Your task to perform on an android device: Open settings on Google Maps Image 0: 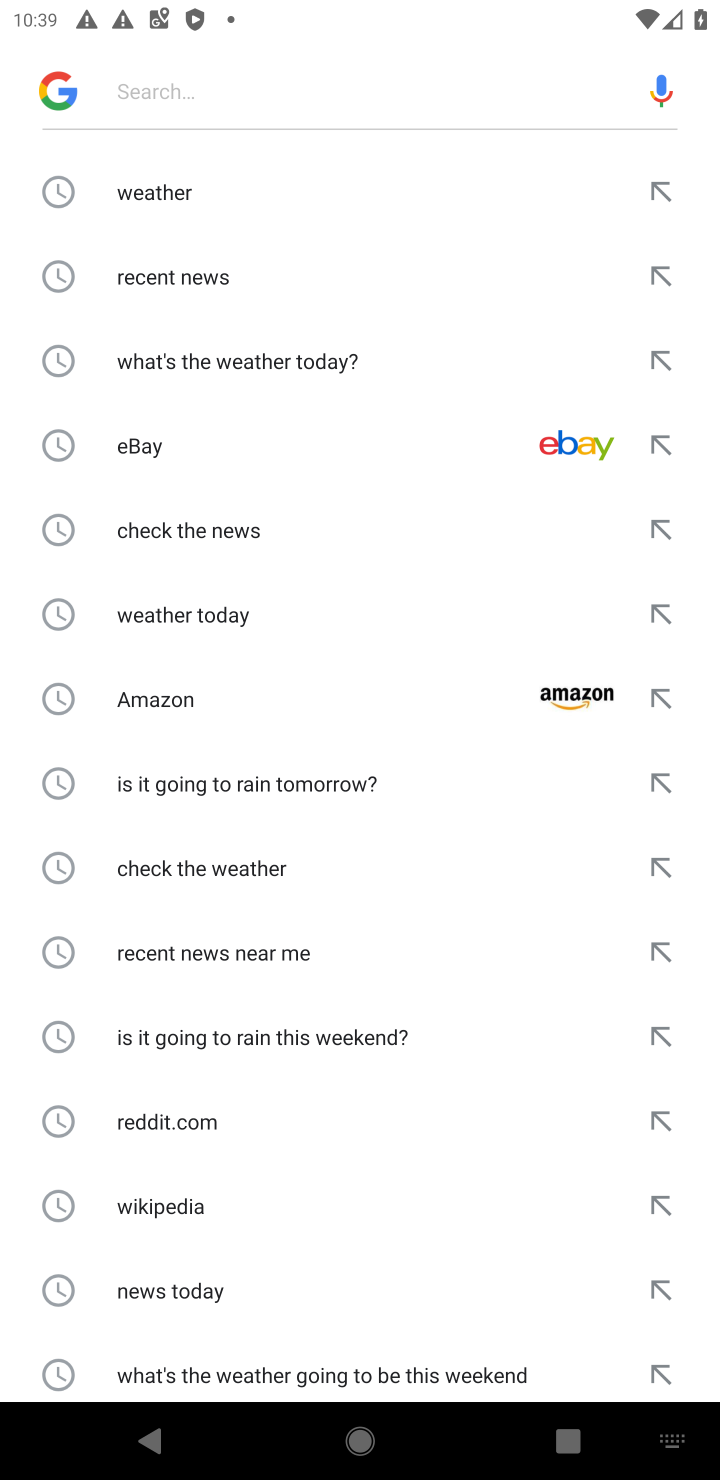
Step 0: press home button
Your task to perform on an android device: Open settings on Google Maps Image 1: 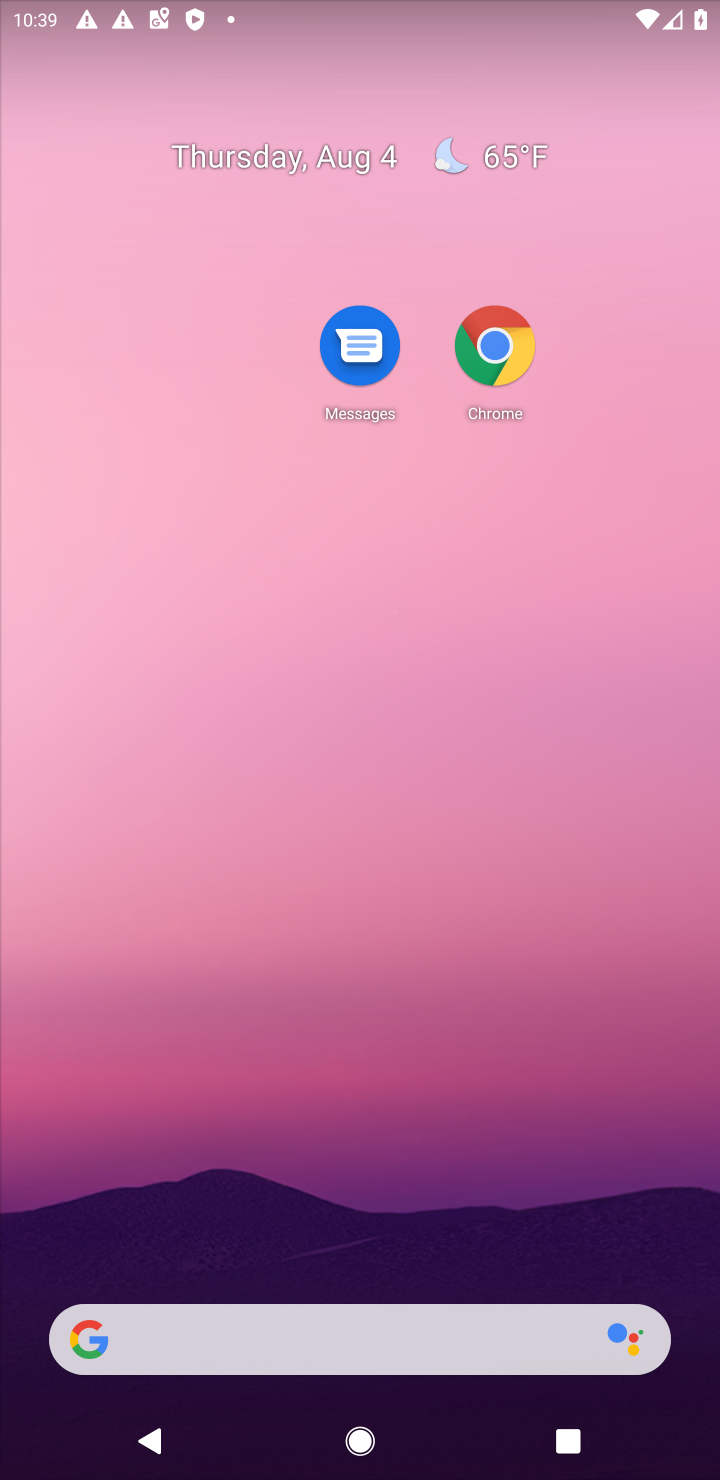
Step 1: drag from (396, 1027) to (457, 48)
Your task to perform on an android device: Open settings on Google Maps Image 2: 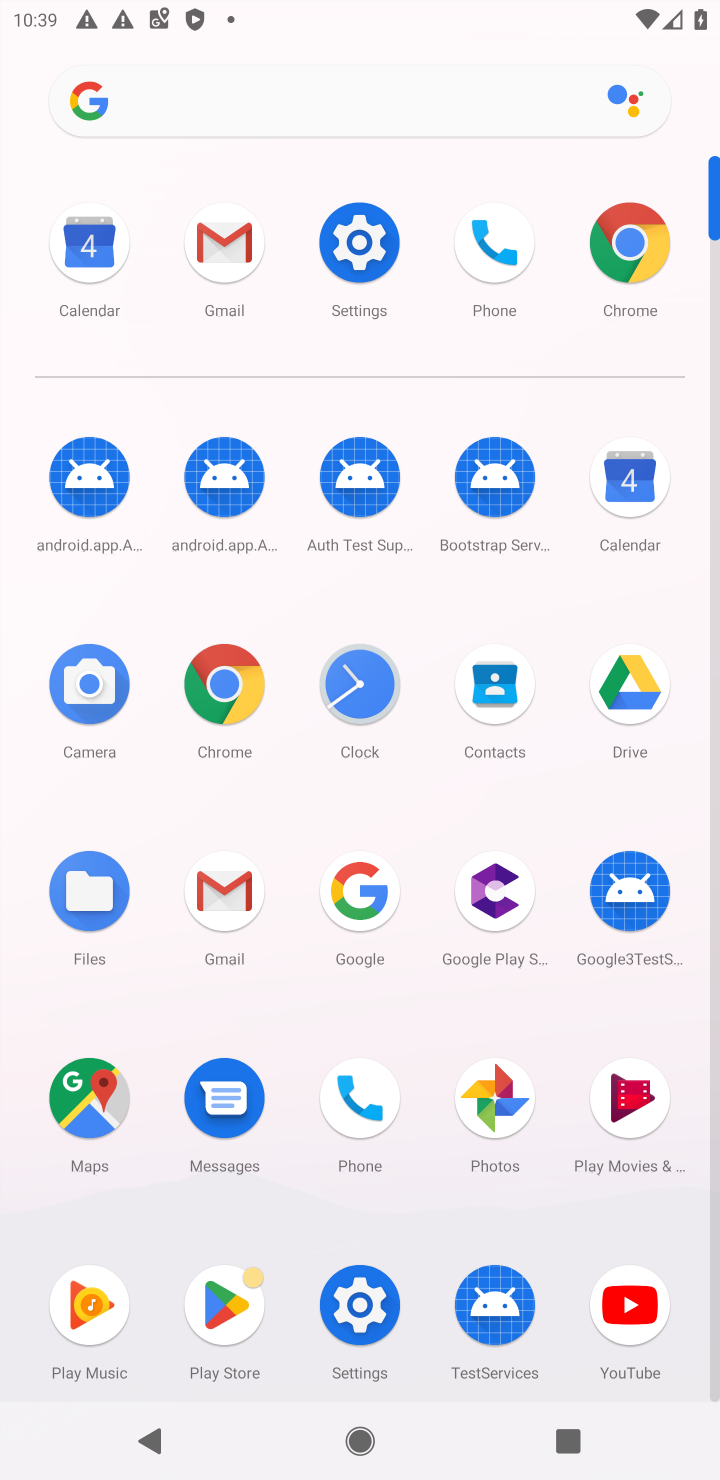
Step 2: drag from (701, 1357) to (654, 658)
Your task to perform on an android device: Open settings on Google Maps Image 3: 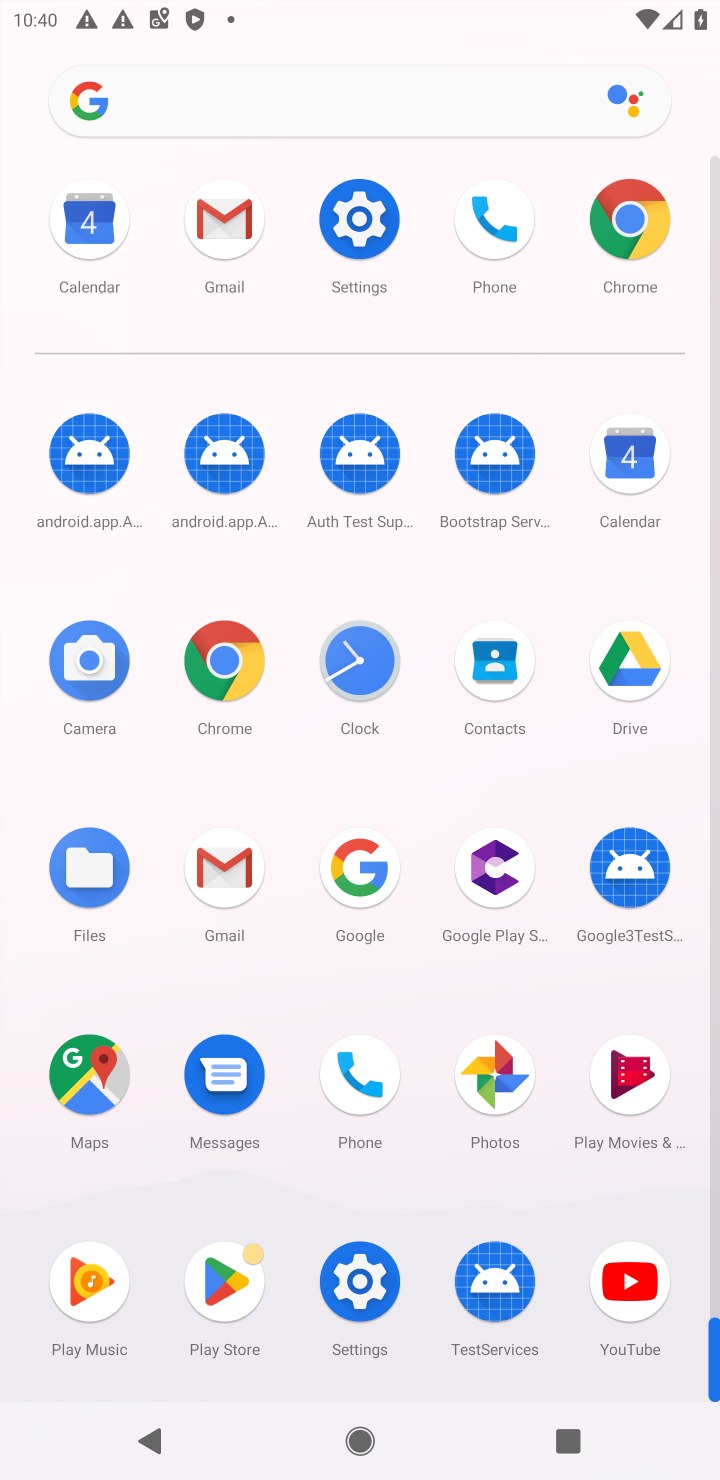
Step 3: click (76, 1093)
Your task to perform on an android device: Open settings on Google Maps Image 4: 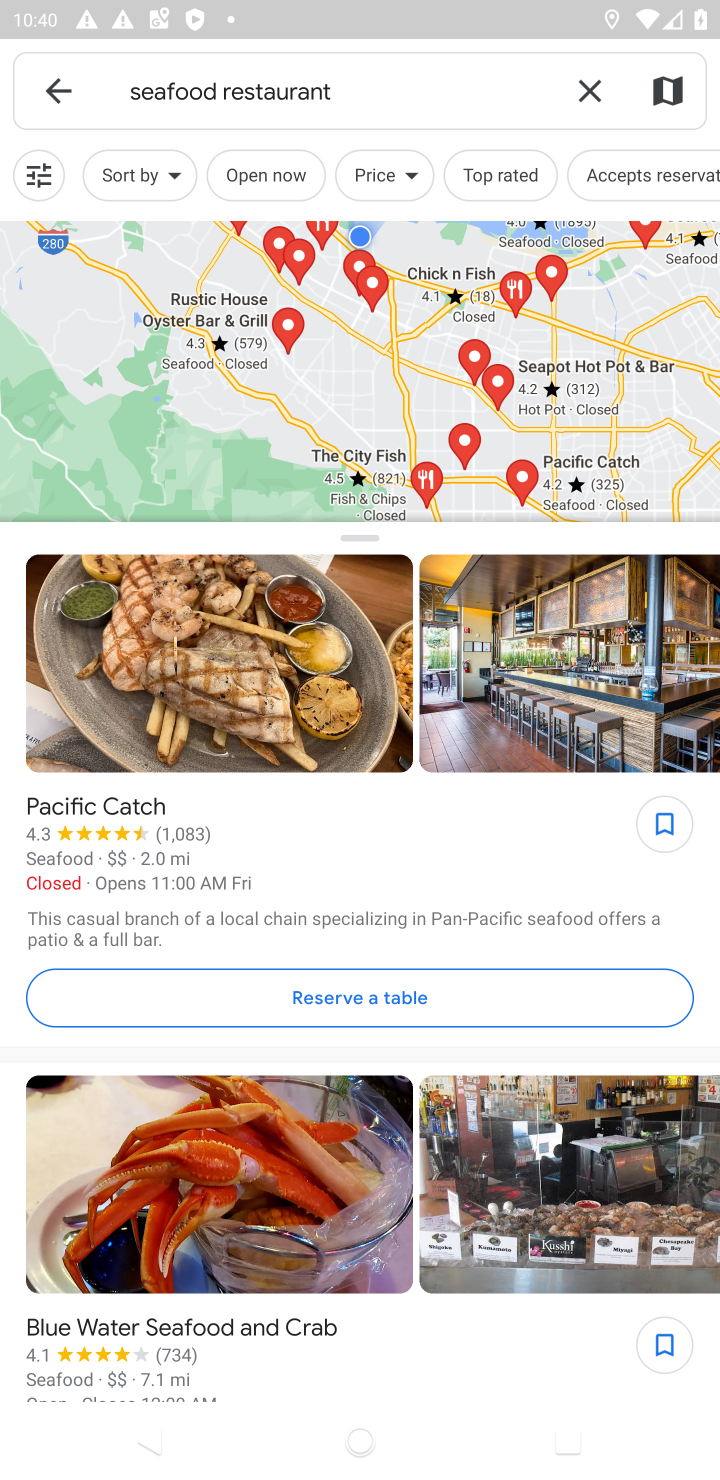
Step 4: task complete